Your task to perform on an android device: turn on notifications settings in the gmail app Image 0: 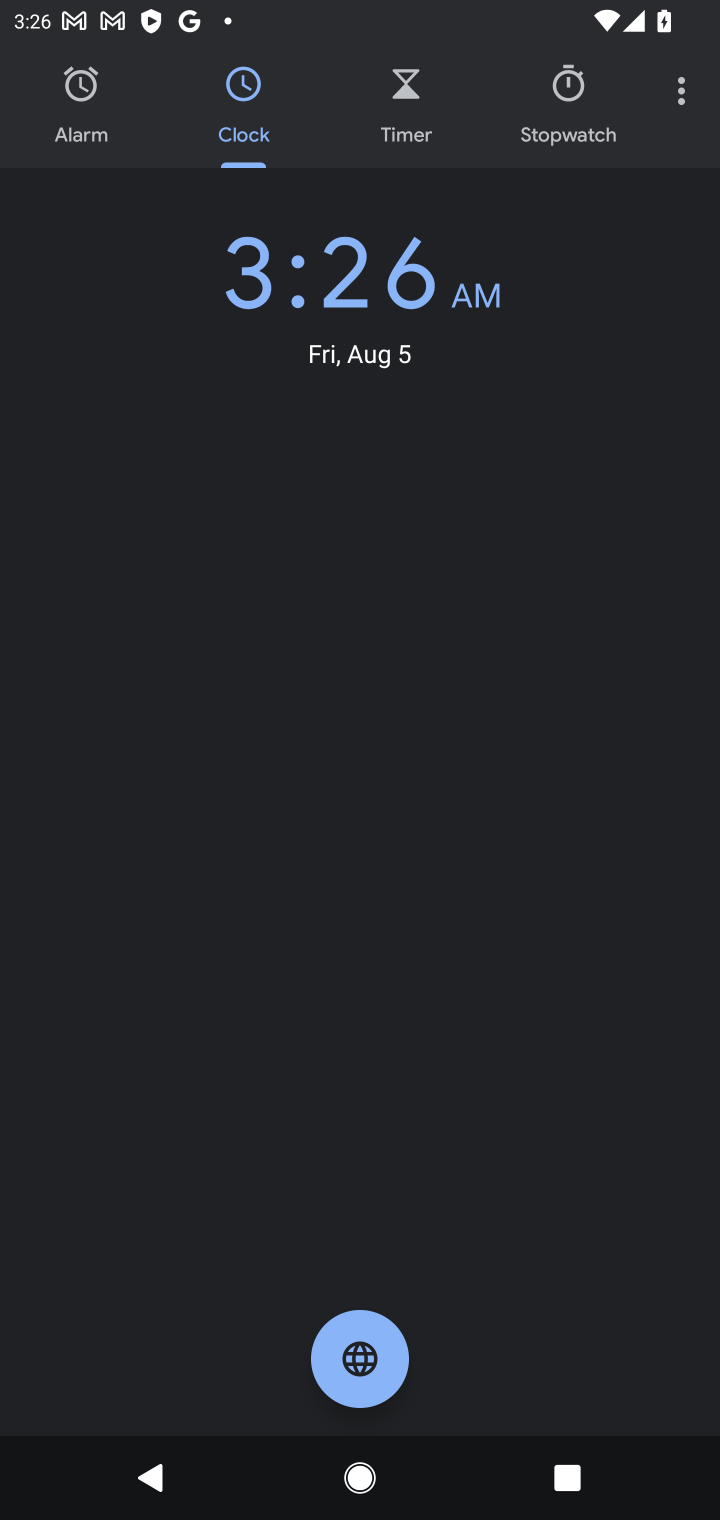
Step 0: press home button
Your task to perform on an android device: turn on notifications settings in the gmail app Image 1: 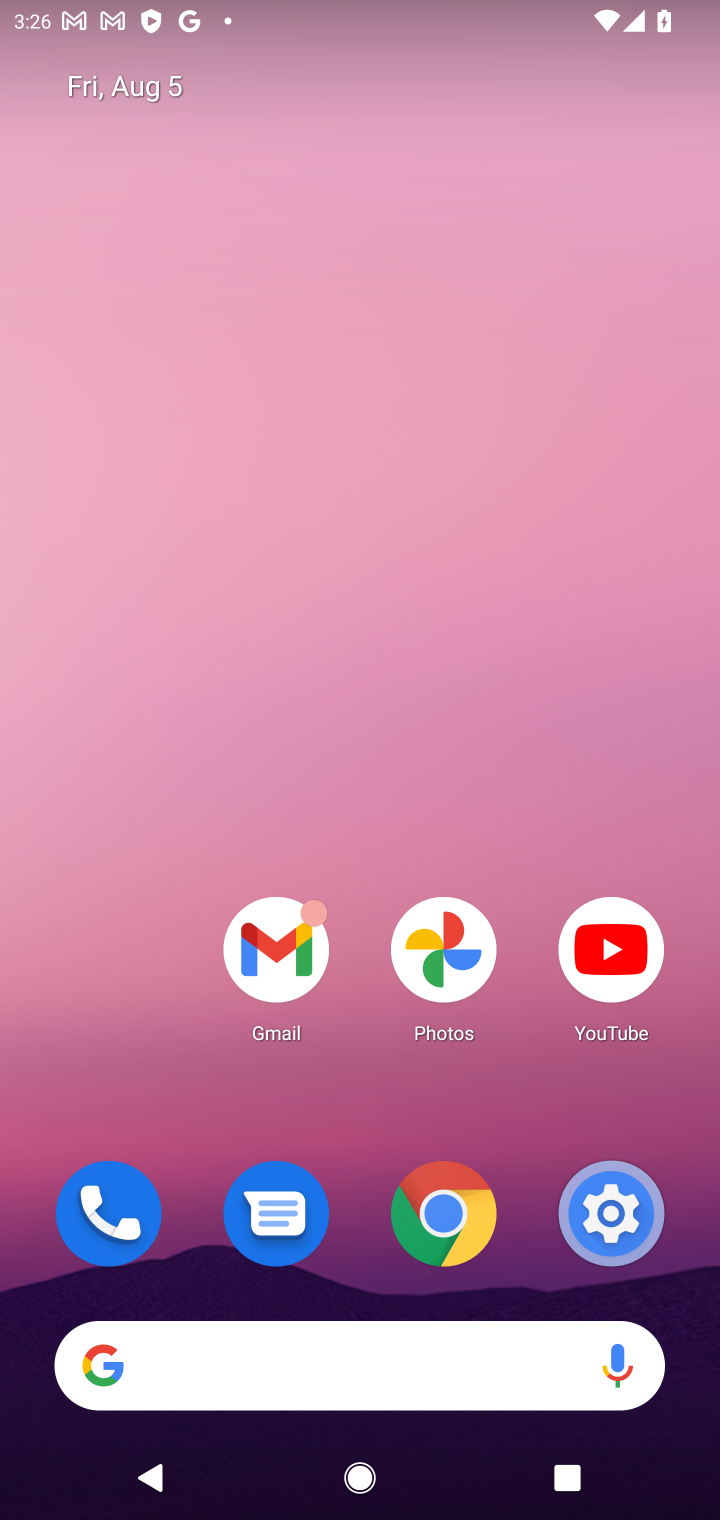
Step 1: click (302, 936)
Your task to perform on an android device: turn on notifications settings in the gmail app Image 2: 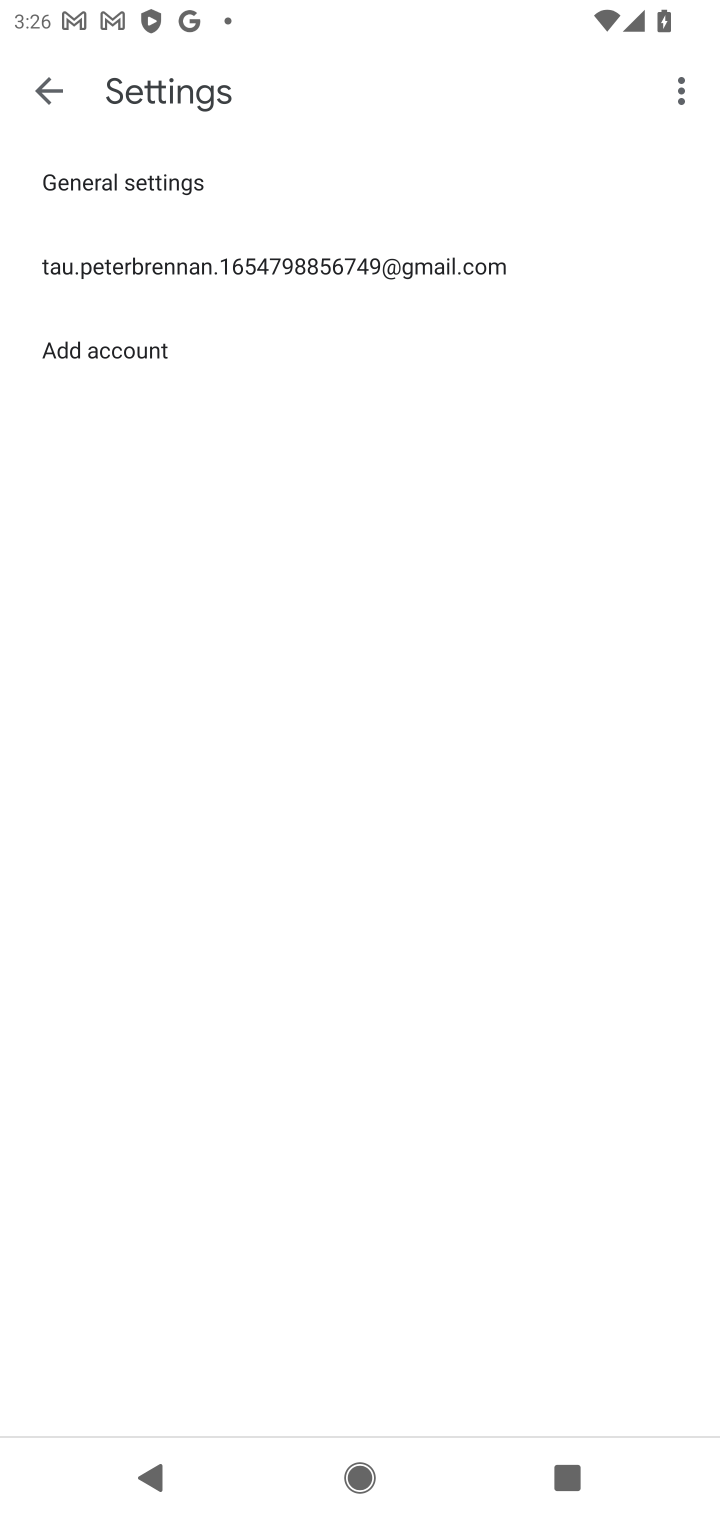
Step 2: click (212, 169)
Your task to perform on an android device: turn on notifications settings in the gmail app Image 3: 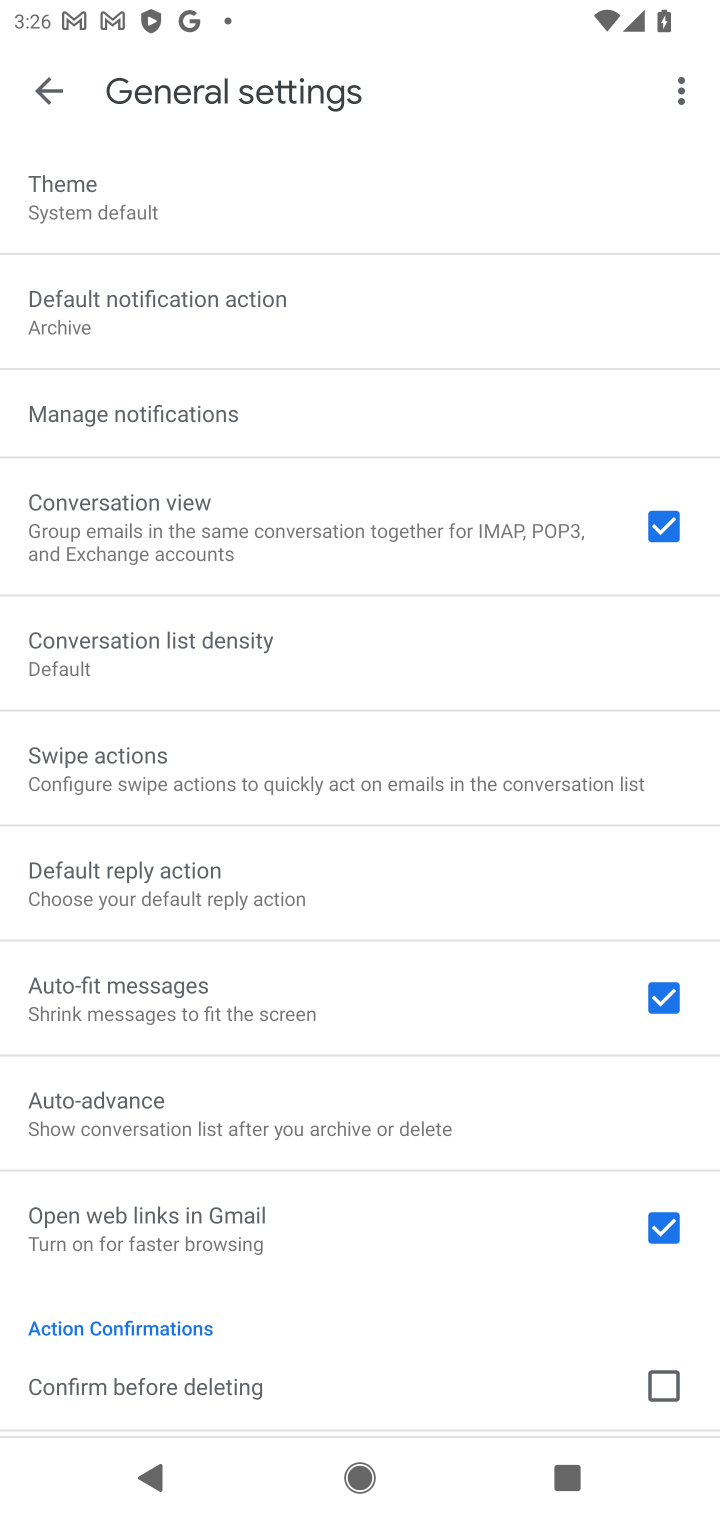
Step 3: task complete